Your task to perform on an android device: Open eBay Image 0: 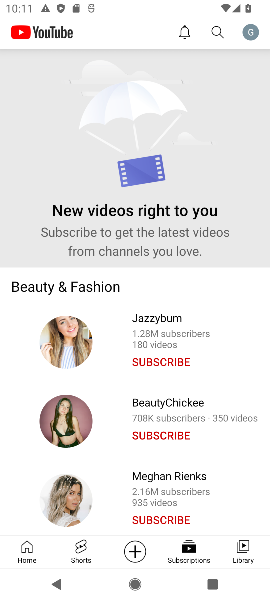
Step 0: press home button
Your task to perform on an android device: Open eBay Image 1: 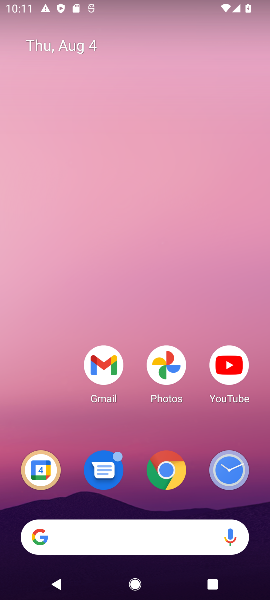
Step 1: click (161, 470)
Your task to perform on an android device: Open eBay Image 2: 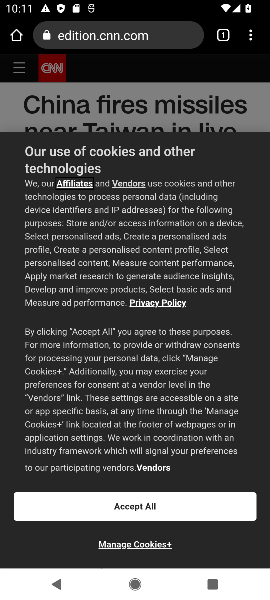
Step 2: click (119, 33)
Your task to perform on an android device: Open eBay Image 3: 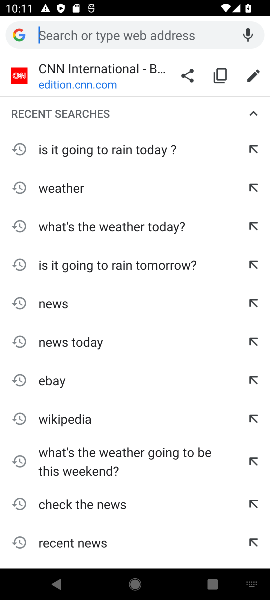
Step 3: type "ebay"
Your task to perform on an android device: Open eBay Image 4: 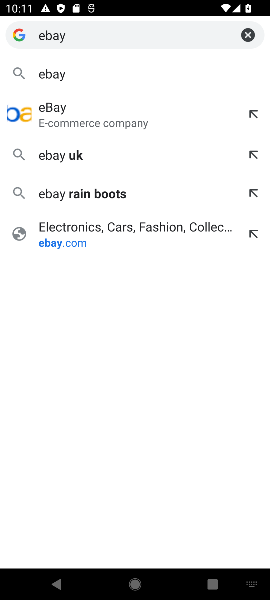
Step 4: click (44, 82)
Your task to perform on an android device: Open eBay Image 5: 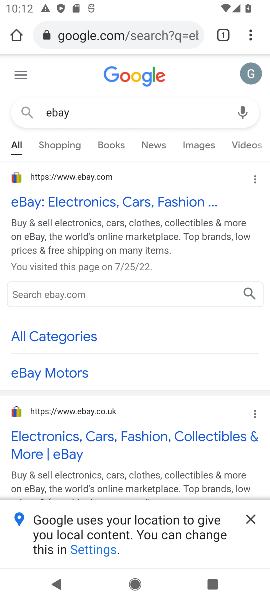
Step 5: click (106, 205)
Your task to perform on an android device: Open eBay Image 6: 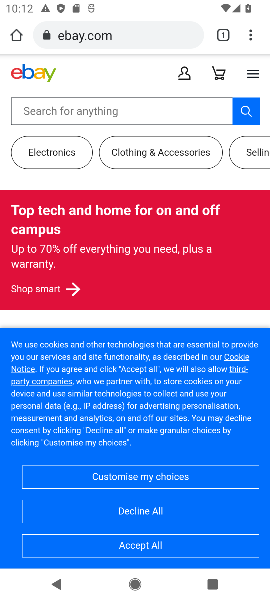
Step 6: task complete